Your task to perform on an android device: Check the weather Image 0: 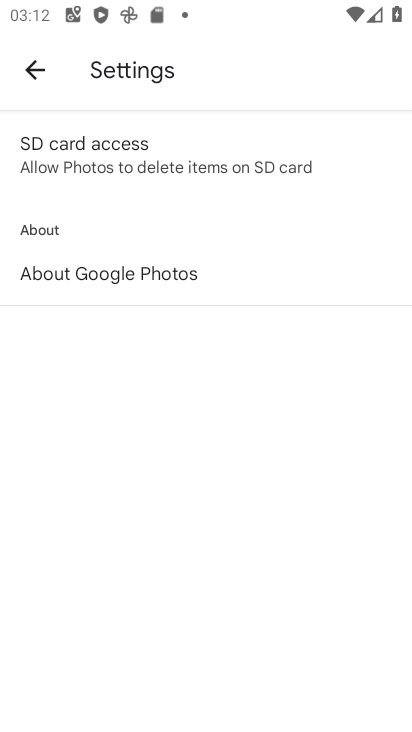
Step 0: press home button
Your task to perform on an android device: Check the weather Image 1: 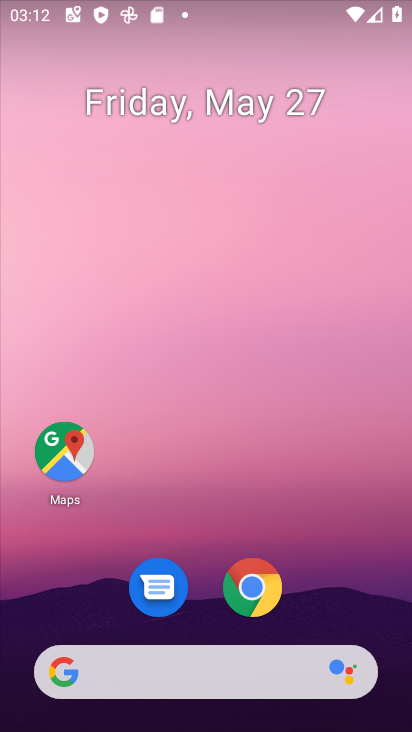
Step 1: click (175, 682)
Your task to perform on an android device: Check the weather Image 2: 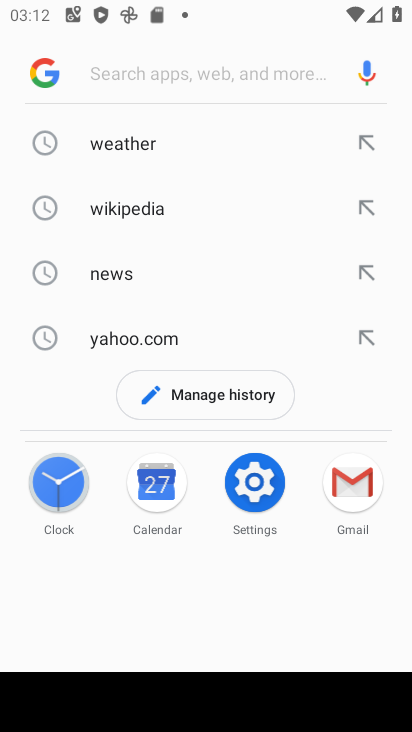
Step 2: click (117, 144)
Your task to perform on an android device: Check the weather Image 3: 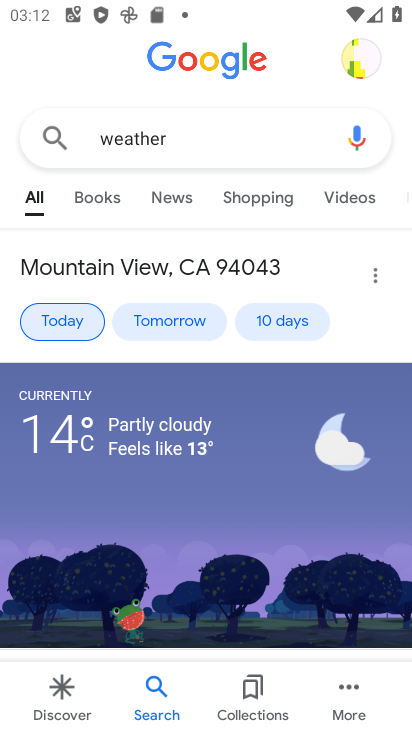
Step 3: task complete